Your task to perform on an android device: open device folders in google photos Image 0: 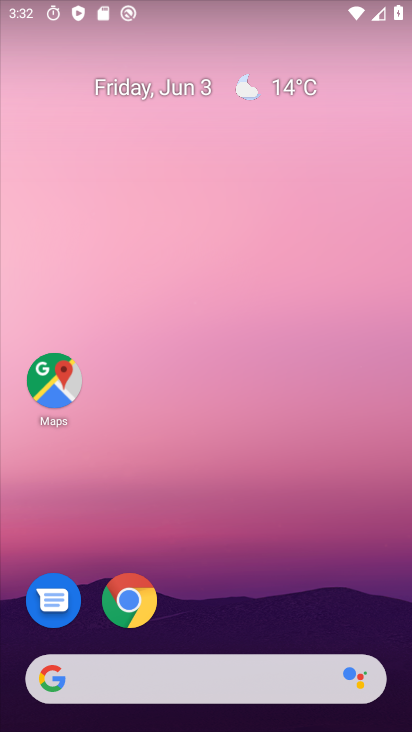
Step 0: drag from (248, 517) to (234, 0)
Your task to perform on an android device: open device folders in google photos Image 1: 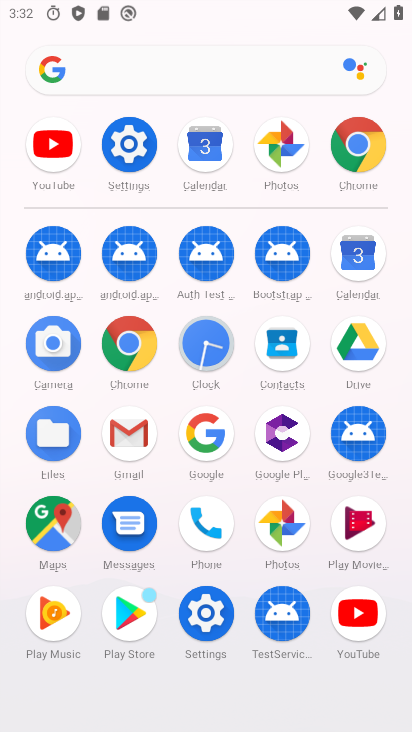
Step 1: drag from (10, 349) to (12, 176)
Your task to perform on an android device: open device folders in google photos Image 2: 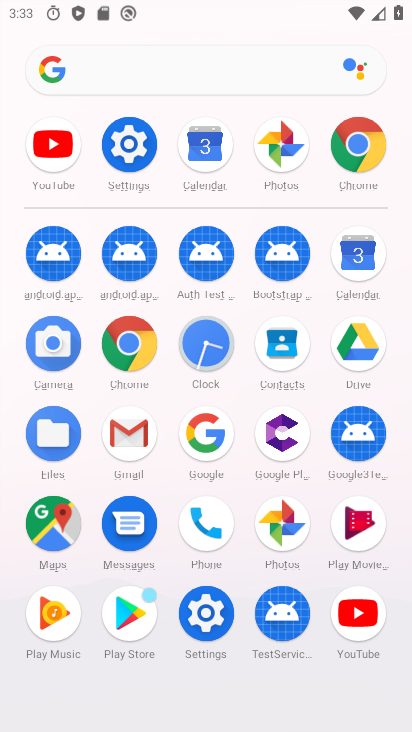
Step 2: click (276, 522)
Your task to perform on an android device: open device folders in google photos Image 3: 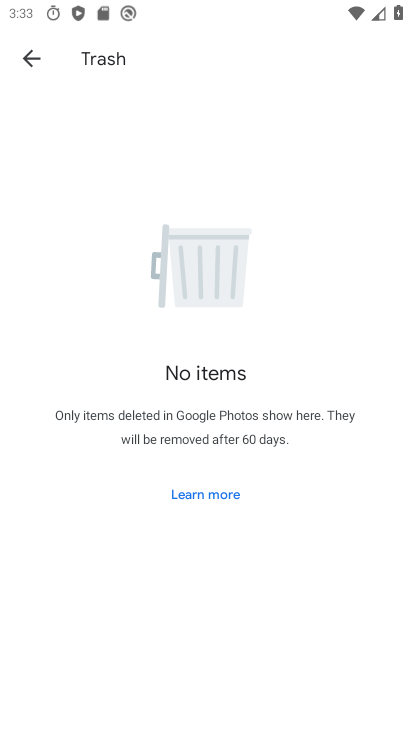
Step 3: click (36, 60)
Your task to perform on an android device: open device folders in google photos Image 4: 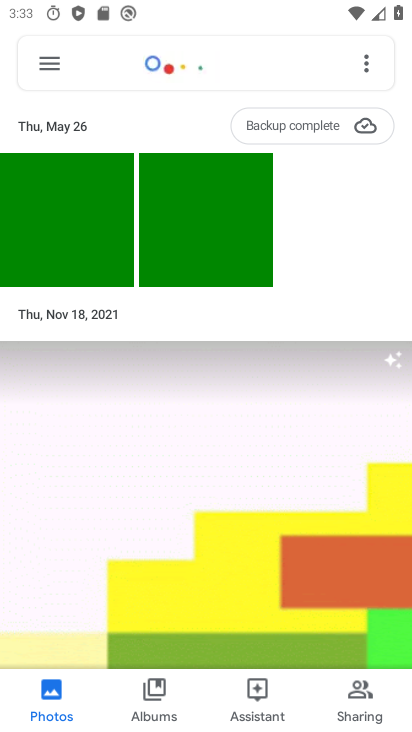
Step 4: click (37, 59)
Your task to perform on an android device: open device folders in google photos Image 5: 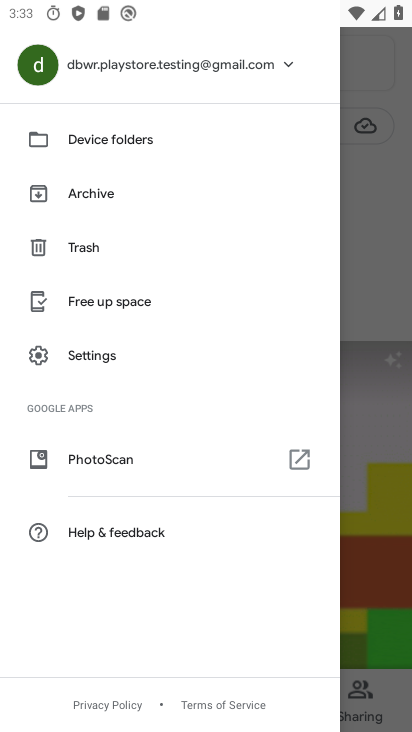
Step 5: click (108, 129)
Your task to perform on an android device: open device folders in google photos Image 6: 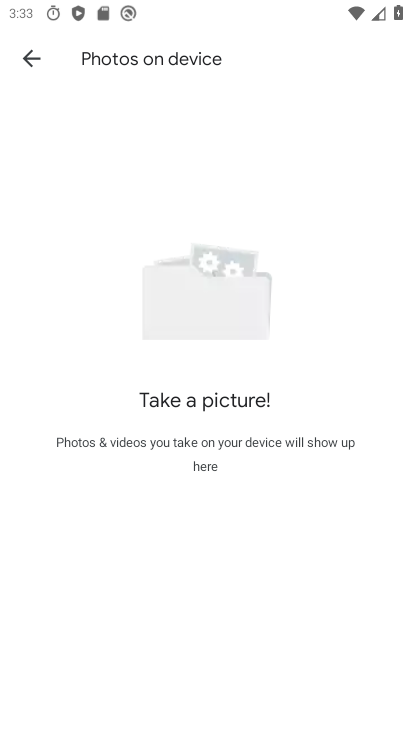
Step 6: task complete